Your task to perform on an android device: Go to CNN.com Image 0: 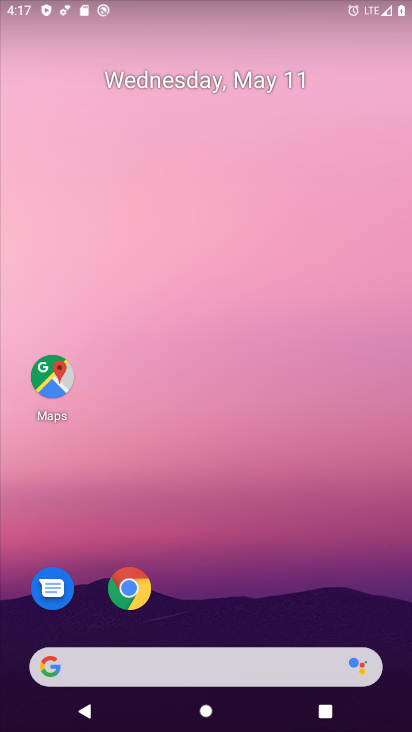
Step 0: drag from (227, 561) to (160, 98)
Your task to perform on an android device: Go to CNN.com Image 1: 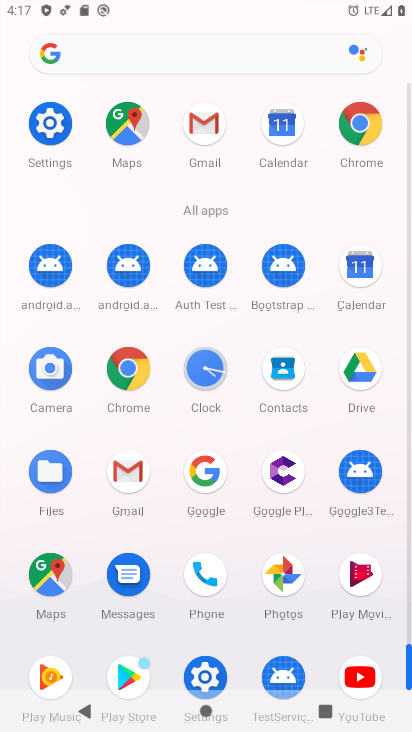
Step 1: click (126, 374)
Your task to perform on an android device: Go to CNN.com Image 2: 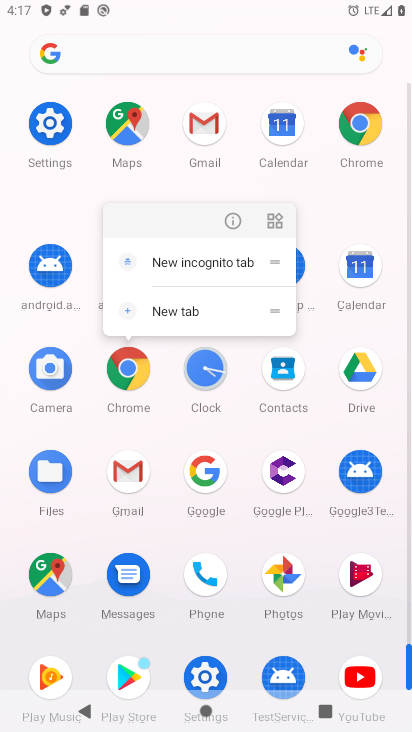
Step 2: click (126, 374)
Your task to perform on an android device: Go to CNN.com Image 3: 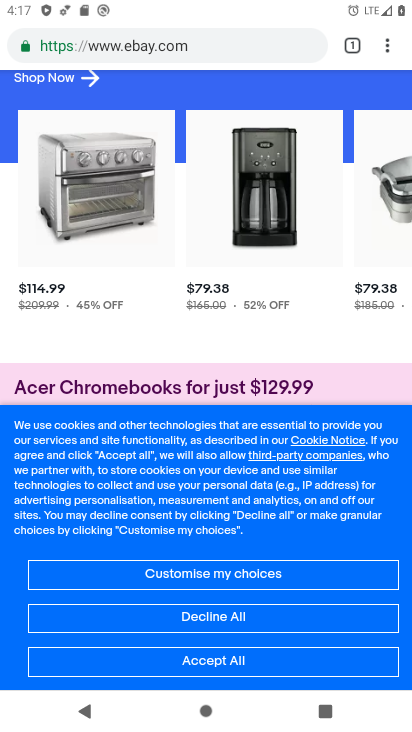
Step 3: click (167, 60)
Your task to perform on an android device: Go to CNN.com Image 4: 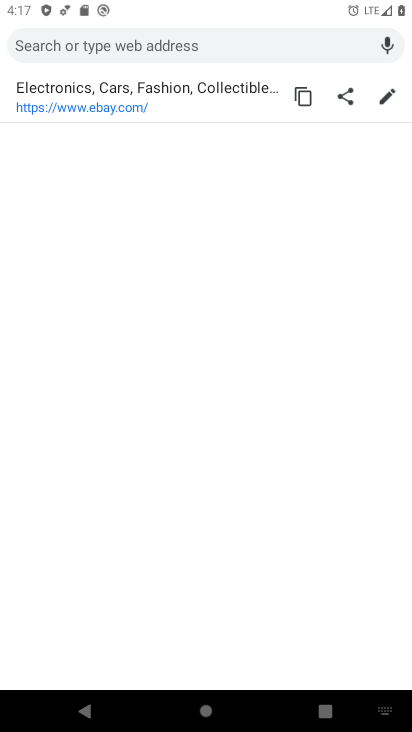
Step 4: type "cnn"
Your task to perform on an android device: Go to CNN.com Image 5: 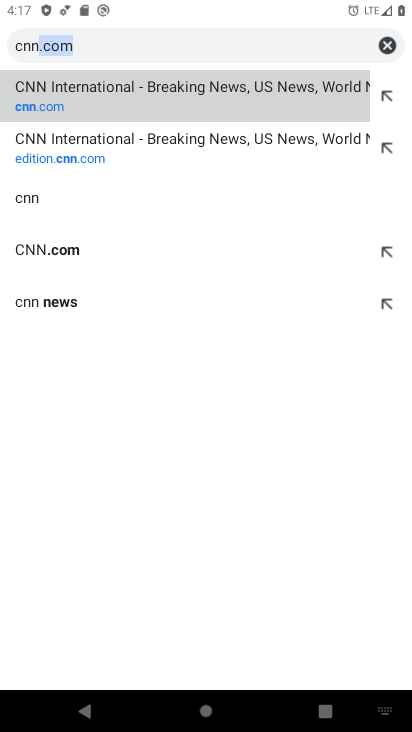
Step 5: click (39, 246)
Your task to perform on an android device: Go to CNN.com Image 6: 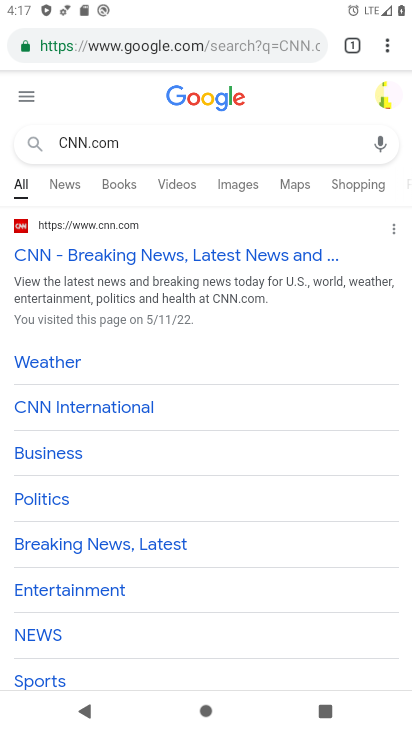
Step 6: click (39, 246)
Your task to perform on an android device: Go to CNN.com Image 7: 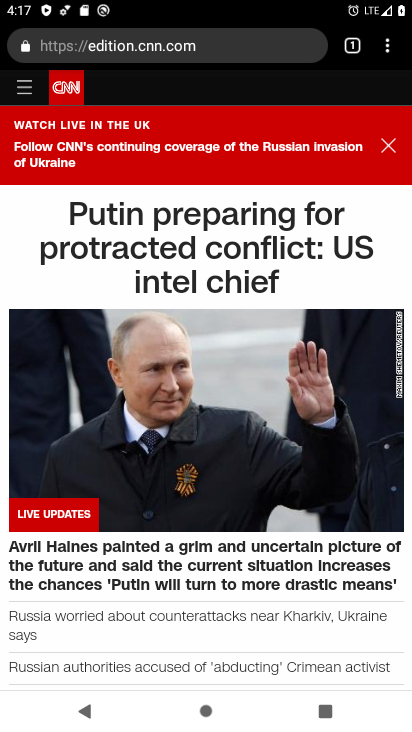
Step 7: task complete